Your task to perform on an android device: Open calendar and show me the first week of next month Image 0: 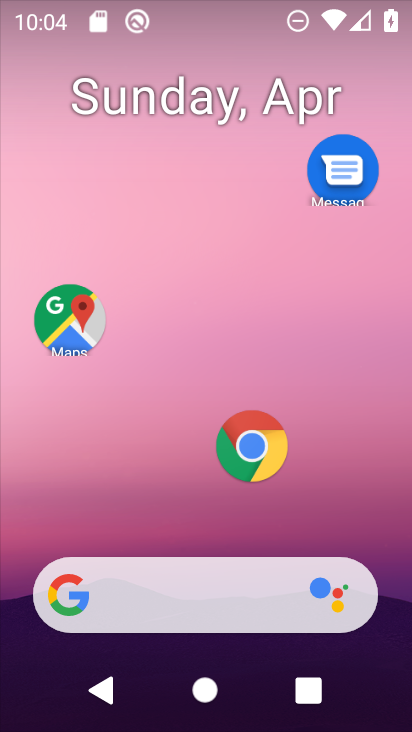
Step 0: drag from (226, 268) to (255, 87)
Your task to perform on an android device: Open calendar and show me the first week of next month Image 1: 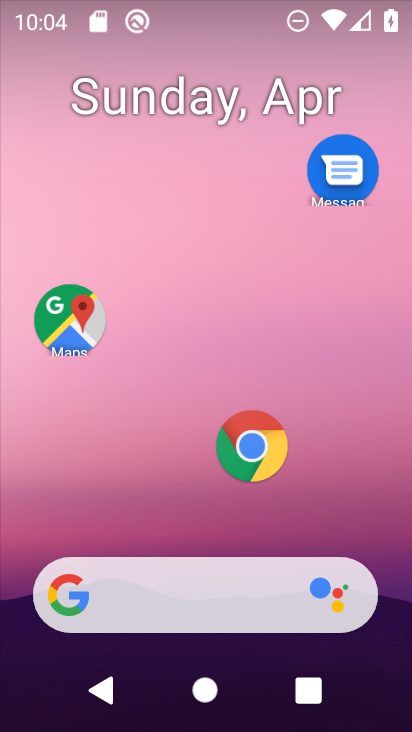
Step 1: drag from (188, 505) to (230, 21)
Your task to perform on an android device: Open calendar and show me the first week of next month Image 2: 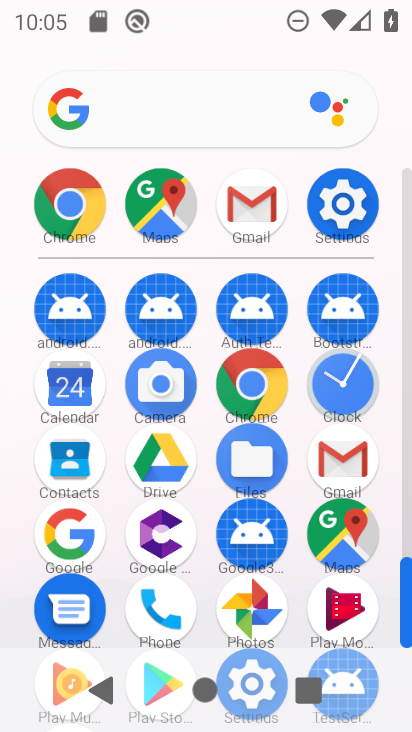
Step 2: click (79, 398)
Your task to perform on an android device: Open calendar and show me the first week of next month Image 3: 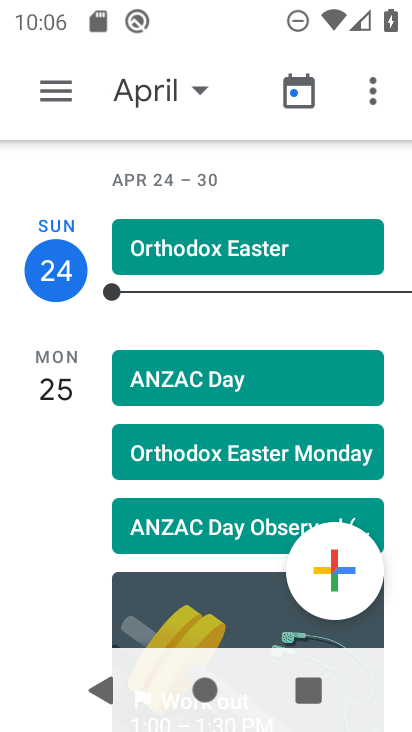
Step 3: click (156, 93)
Your task to perform on an android device: Open calendar and show me the first week of next month Image 4: 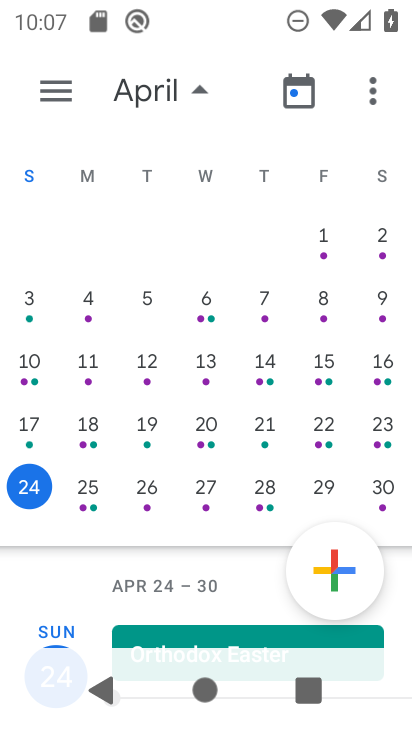
Step 4: click (88, 495)
Your task to perform on an android device: Open calendar and show me the first week of next month Image 5: 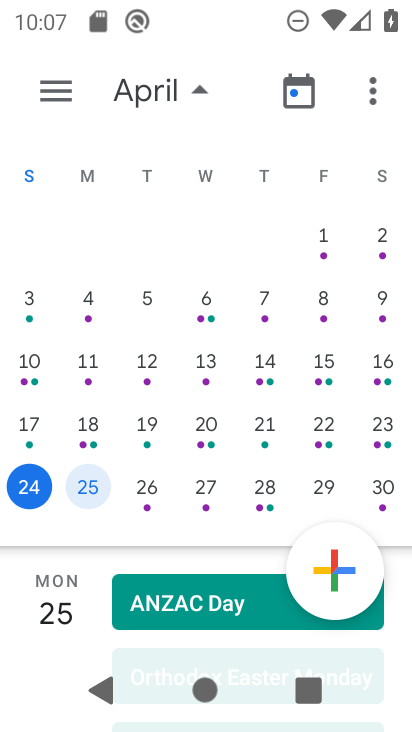
Step 5: drag from (325, 302) to (2, 336)
Your task to perform on an android device: Open calendar and show me the first week of next month Image 6: 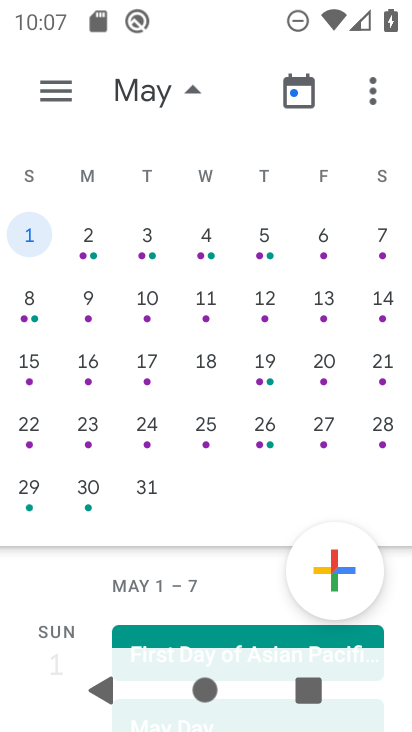
Step 6: click (204, 239)
Your task to perform on an android device: Open calendar and show me the first week of next month Image 7: 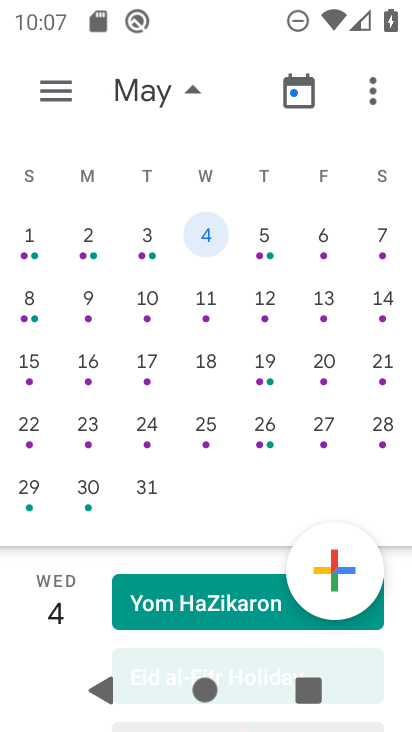
Step 7: task complete